Your task to perform on an android device: Go to Wikipedia Image 0: 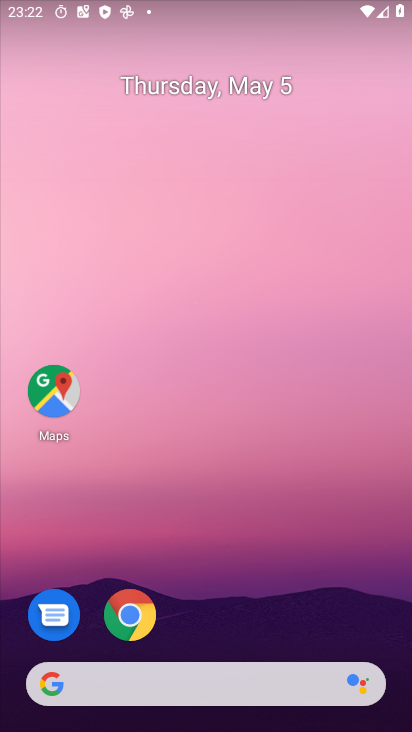
Step 0: click (134, 615)
Your task to perform on an android device: Go to Wikipedia Image 1: 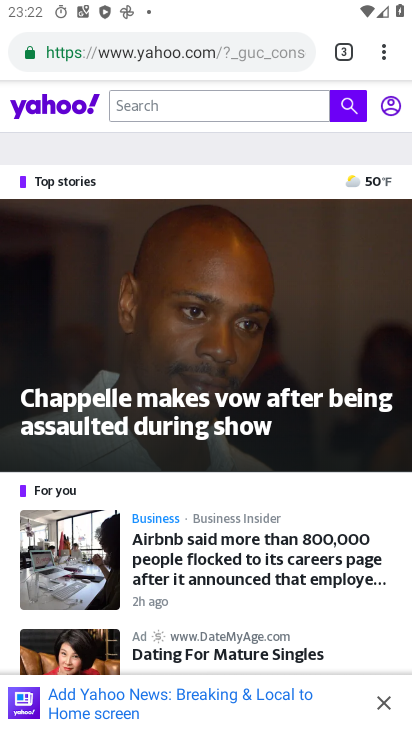
Step 1: press back button
Your task to perform on an android device: Go to Wikipedia Image 2: 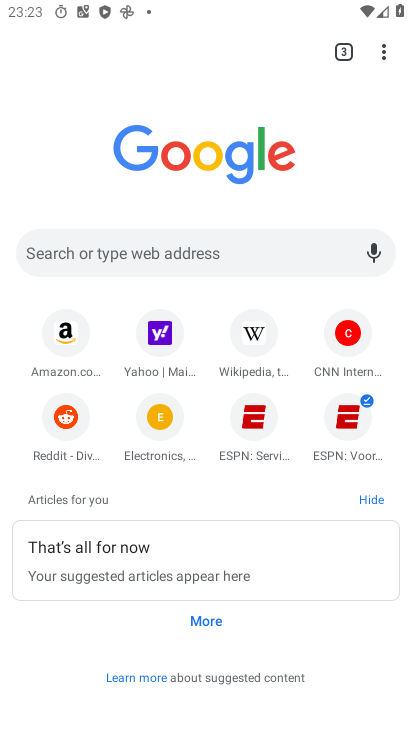
Step 2: click (254, 335)
Your task to perform on an android device: Go to Wikipedia Image 3: 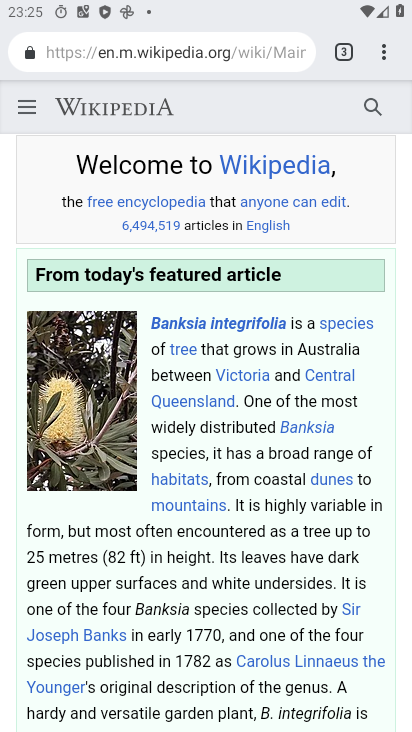
Step 3: task complete